Your task to perform on an android device: turn off notifications settings in the gmail app Image 0: 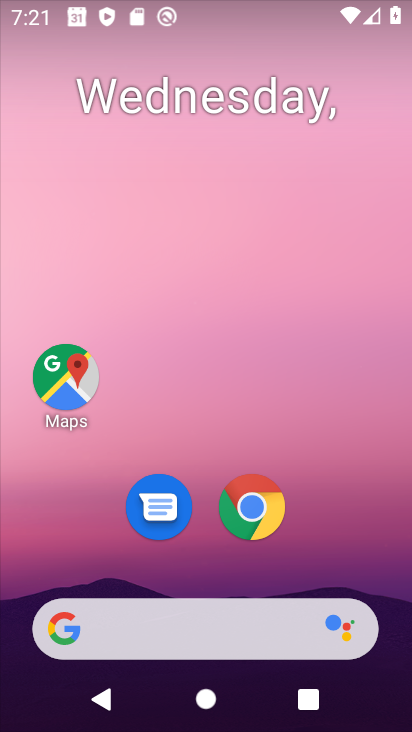
Step 0: drag from (259, 663) to (231, 169)
Your task to perform on an android device: turn off notifications settings in the gmail app Image 1: 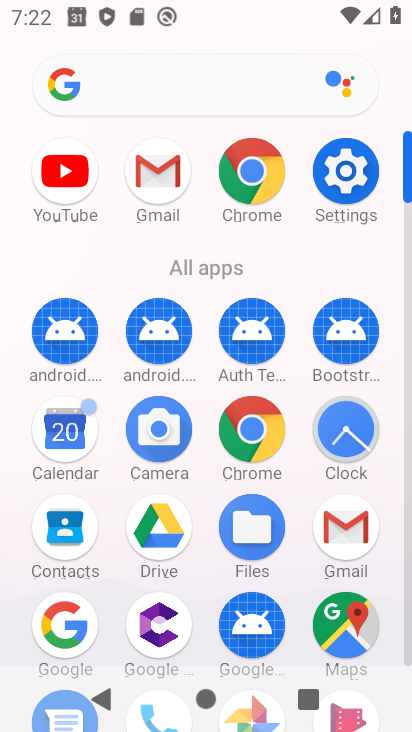
Step 1: click (326, 526)
Your task to perform on an android device: turn off notifications settings in the gmail app Image 2: 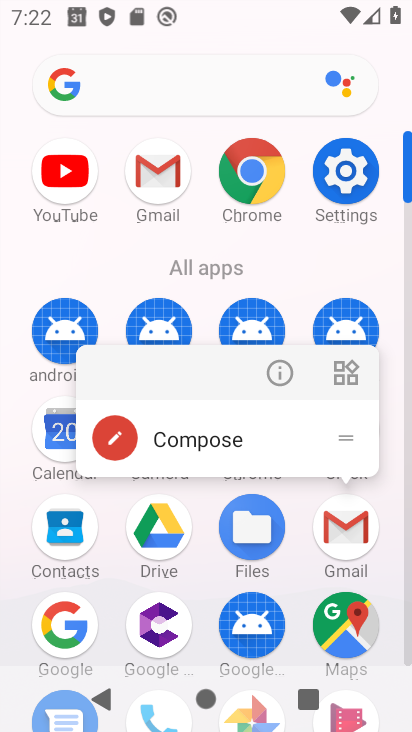
Step 2: click (147, 194)
Your task to perform on an android device: turn off notifications settings in the gmail app Image 3: 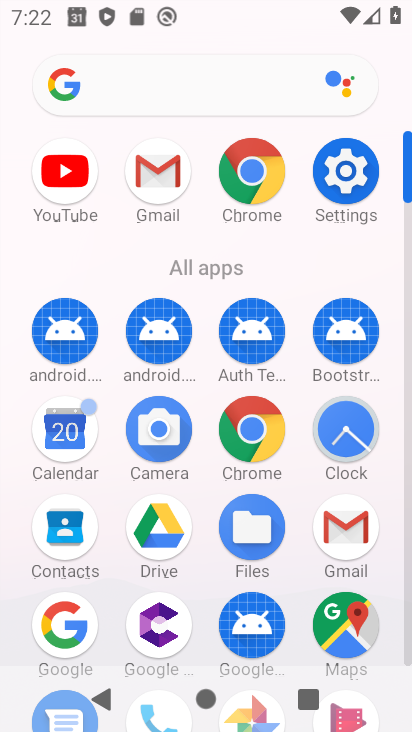
Step 3: click (153, 177)
Your task to perform on an android device: turn off notifications settings in the gmail app Image 4: 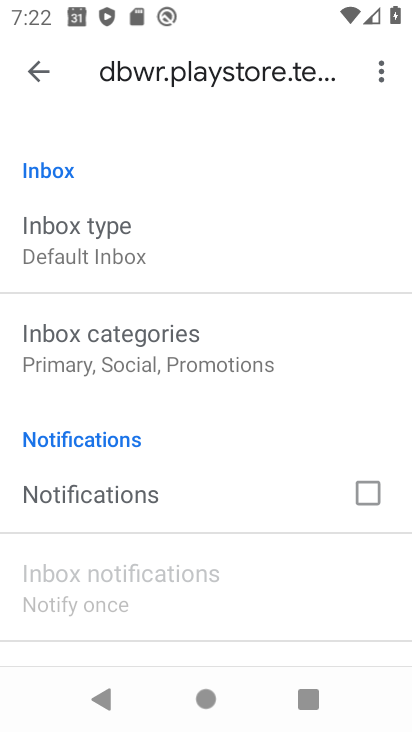
Step 4: click (358, 501)
Your task to perform on an android device: turn off notifications settings in the gmail app Image 5: 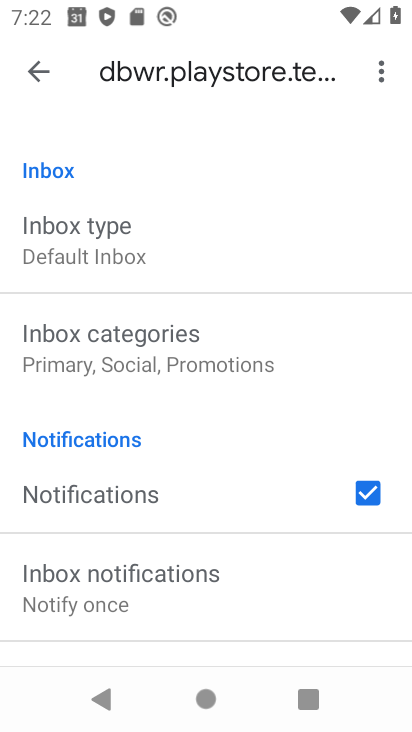
Step 5: click (269, 466)
Your task to perform on an android device: turn off notifications settings in the gmail app Image 6: 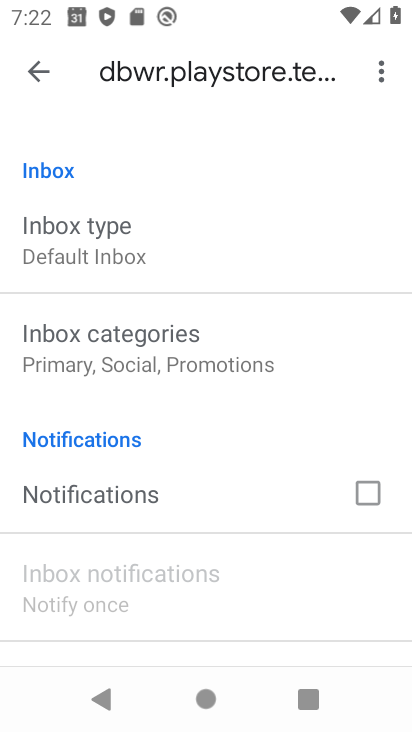
Step 6: task complete